Your task to perform on an android device: open app "Microsoft Excel" Image 0: 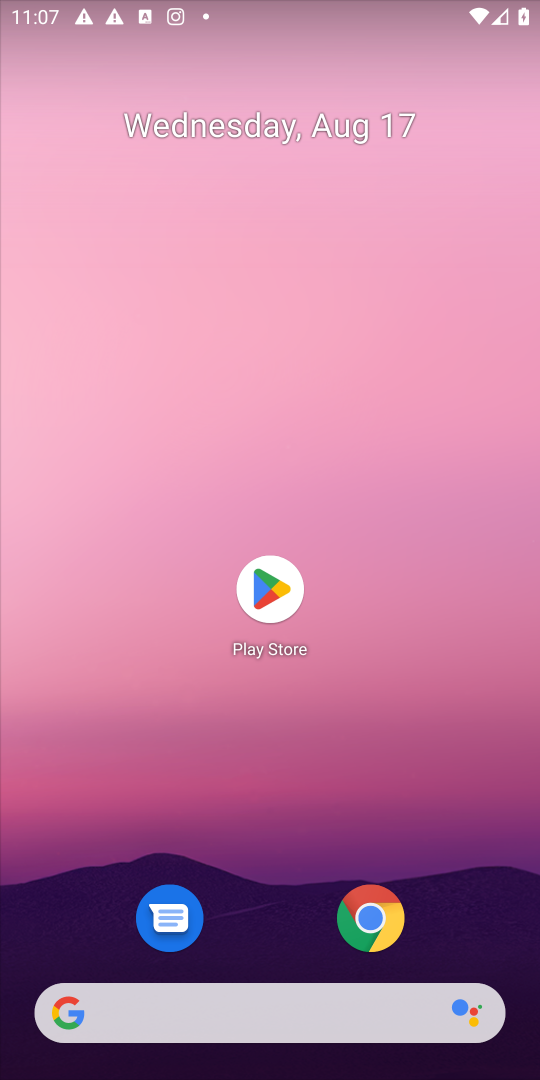
Step 0: press home button
Your task to perform on an android device: open app "Microsoft Excel" Image 1: 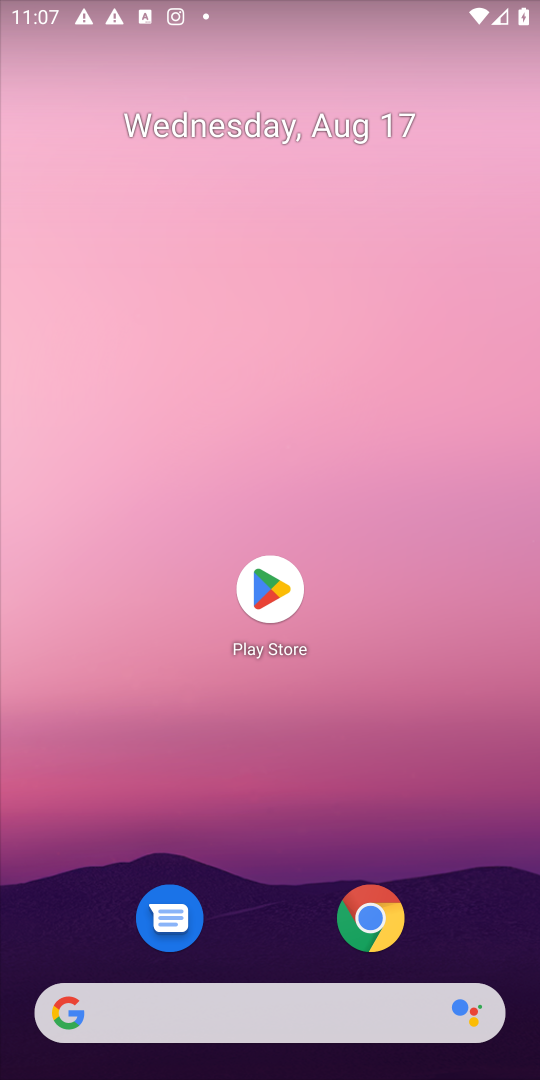
Step 1: click (274, 581)
Your task to perform on an android device: open app "Microsoft Excel" Image 2: 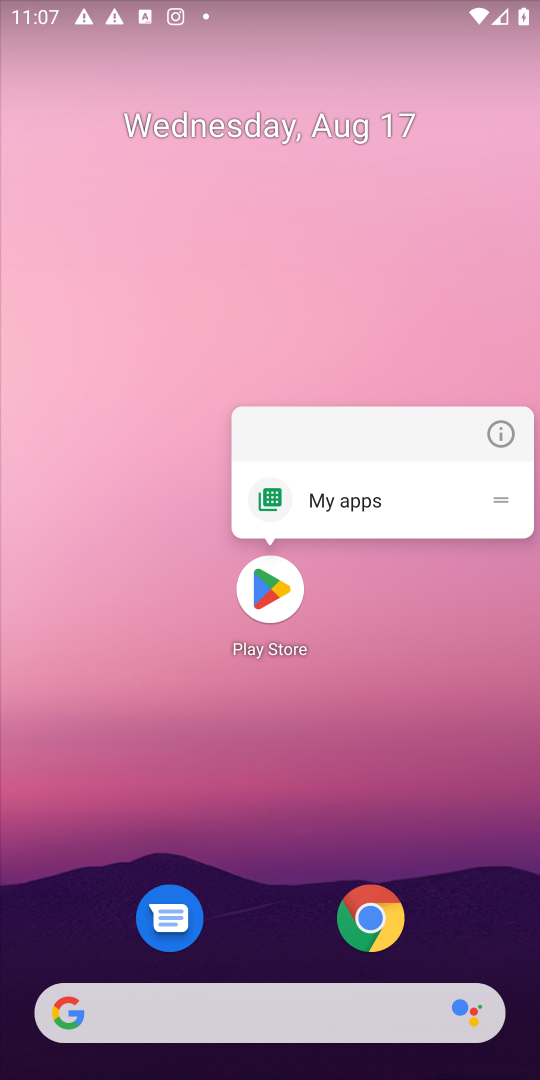
Step 2: click (267, 594)
Your task to perform on an android device: open app "Microsoft Excel" Image 3: 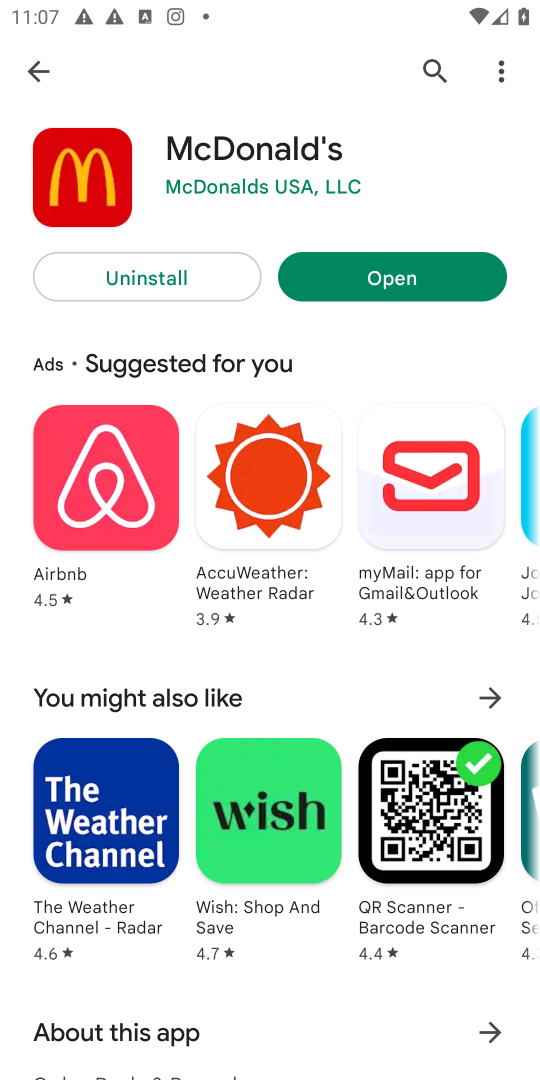
Step 3: click (427, 61)
Your task to perform on an android device: open app "Microsoft Excel" Image 4: 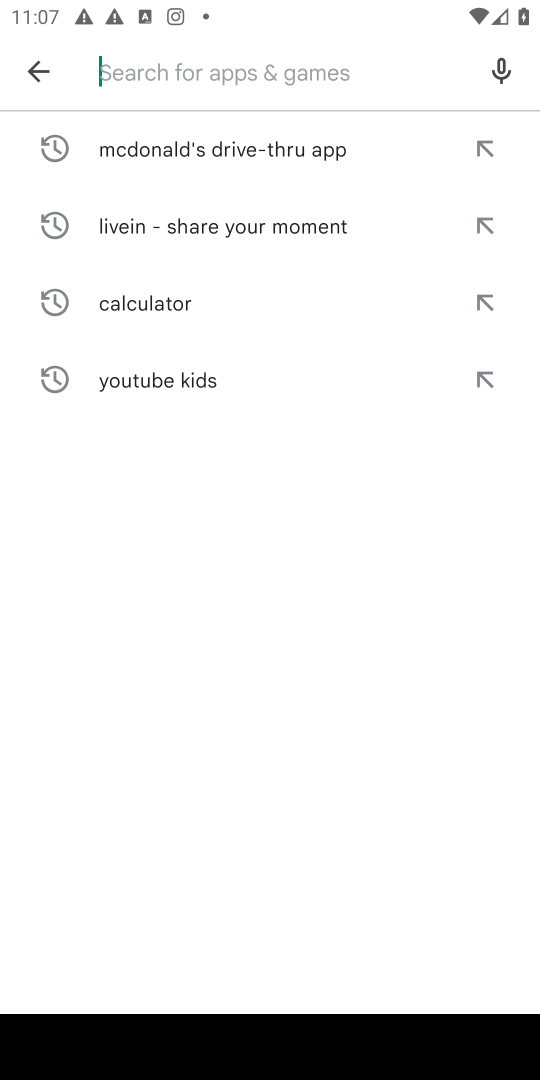
Step 4: type "Microsoft Excel"
Your task to perform on an android device: open app "Microsoft Excel" Image 5: 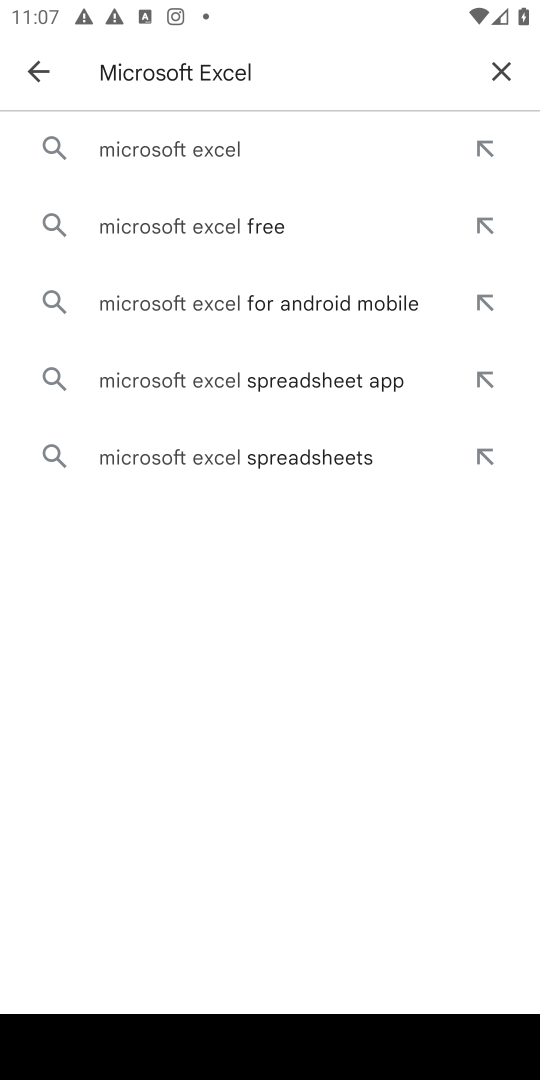
Step 5: click (211, 142)
Your task to perform on an android device: open app "Microsoft Excel" Image 6: 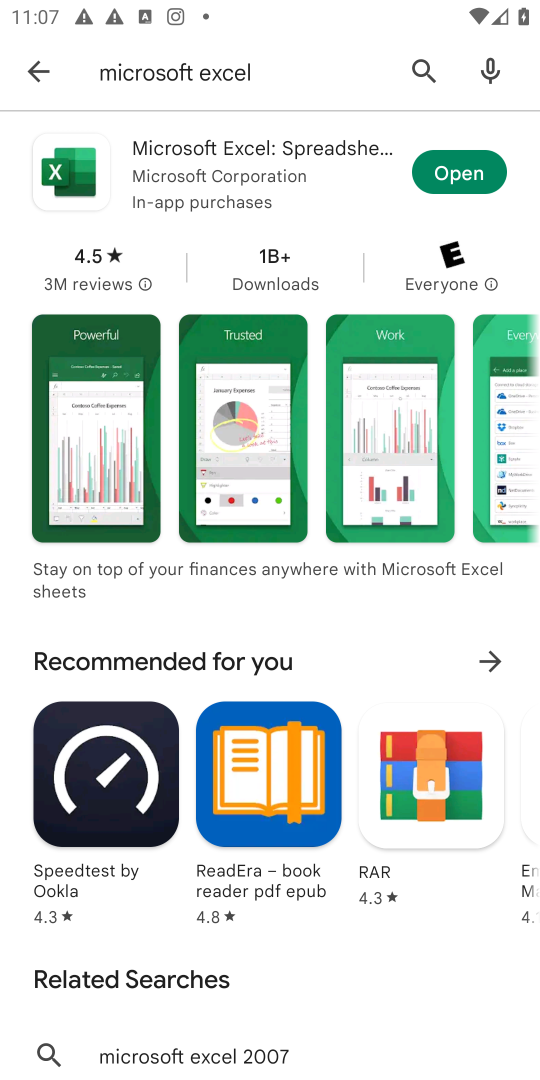
Step 6: click (456, 178)
Your task to perform on an android device: open app "Microsoft Excel" Image 7: 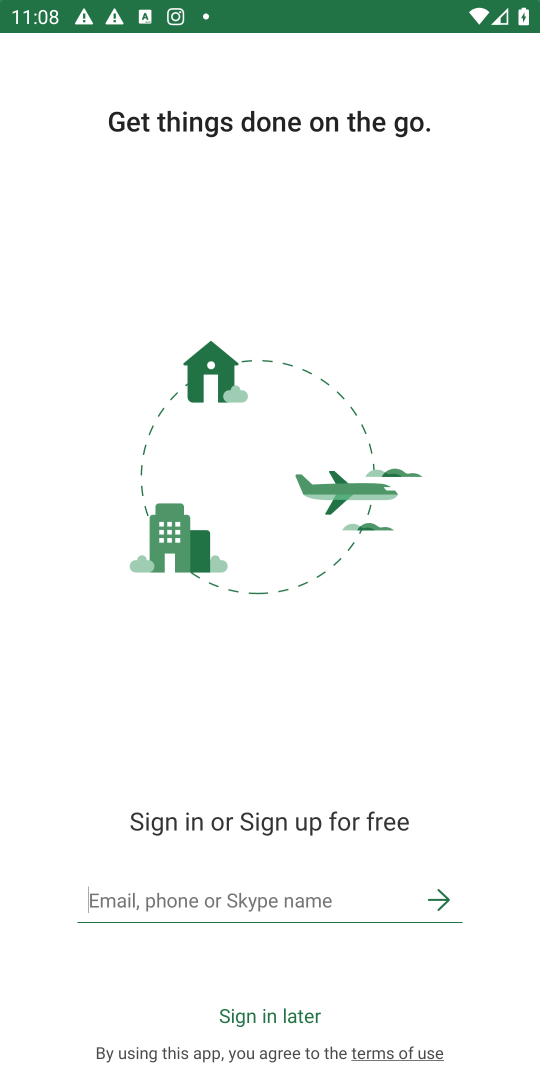
Step 7: task complete